Your task to perform on an android device: Open Amazon Image 0: 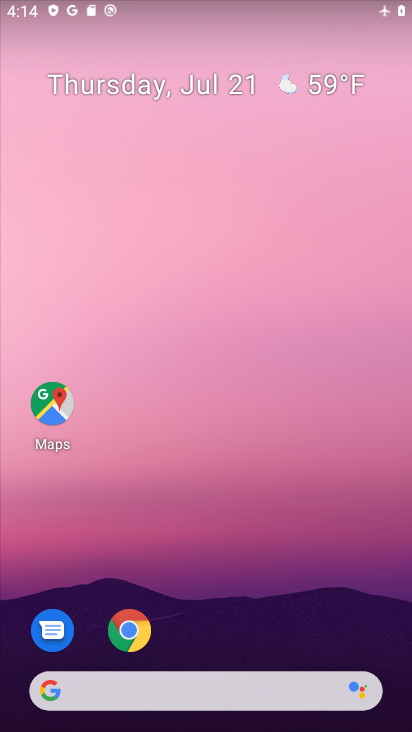
Step 0: drag from (242, 582) to (242, 153)
Your task to perform on an android device: Open Amazon Image 1: 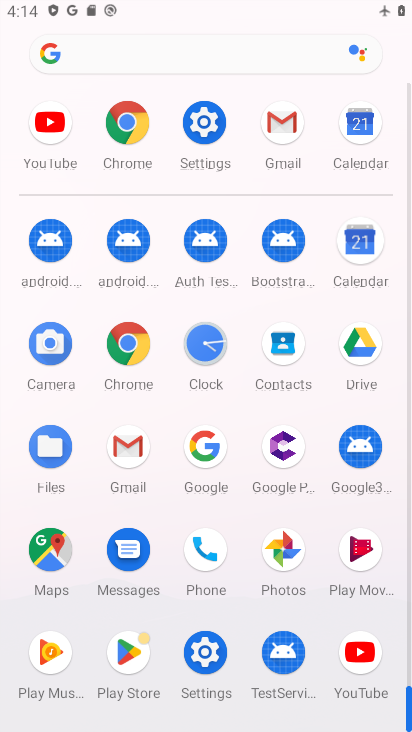
Step 1: click (129, 120)
Your task to perform on an android device: Open Amazon Image 2: 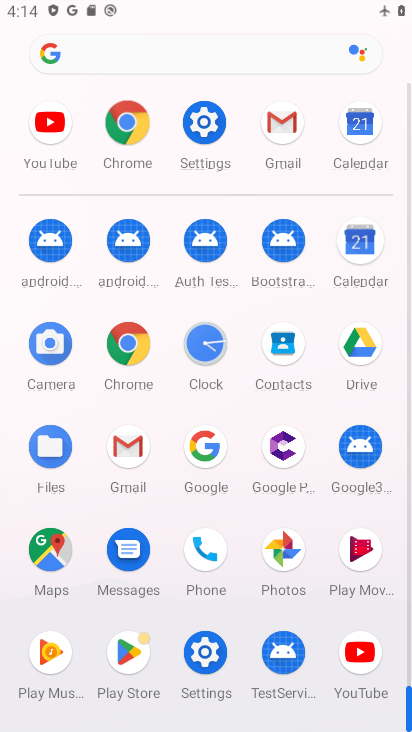
Step 2: click (135, 120)
Your task to perform on an android device: Open Amazon Image 3: 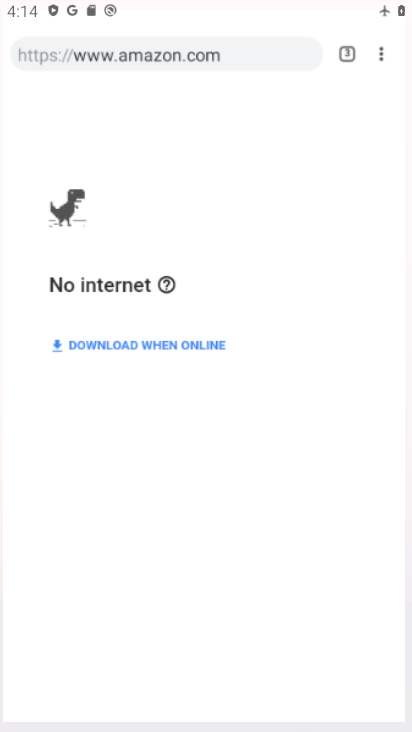
Step 3: click (136, 120)
Your task to perform on an android device: Open Amazon Image 4: 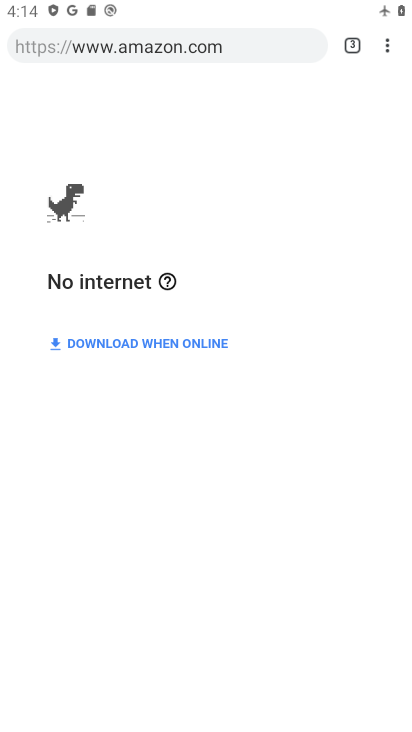
Step 4: drag from (386, 51) to (210, 92)
Your task to perform on an android device: Open Amazon Image 5: 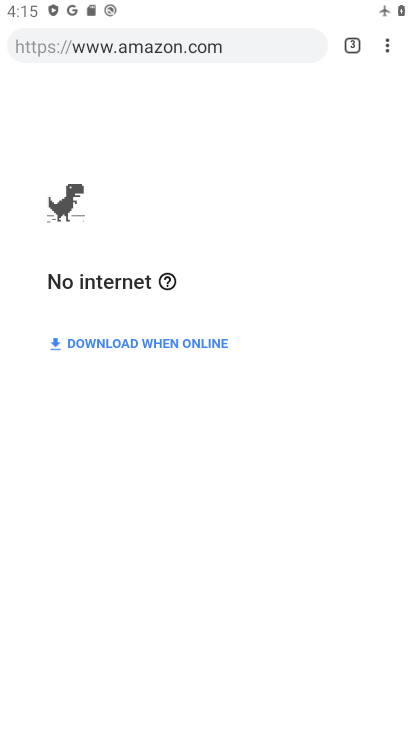
Step 5: click (211, 93)
Your task to perform on an android device: Open Amazon Image 6: 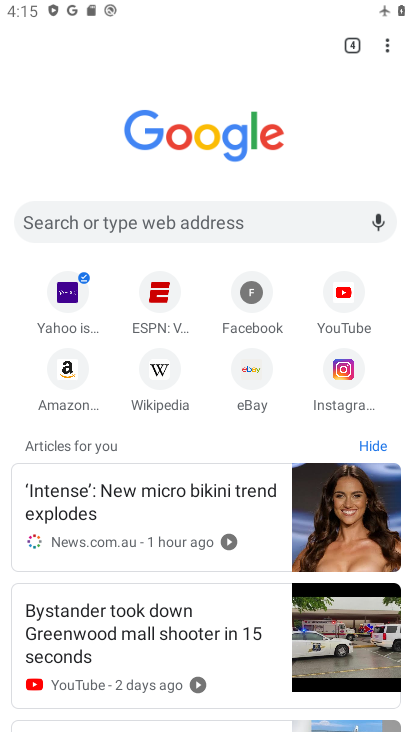
Step 6: click (63, 373)
Your task to perform on an android device: Open Amazon Image 7: 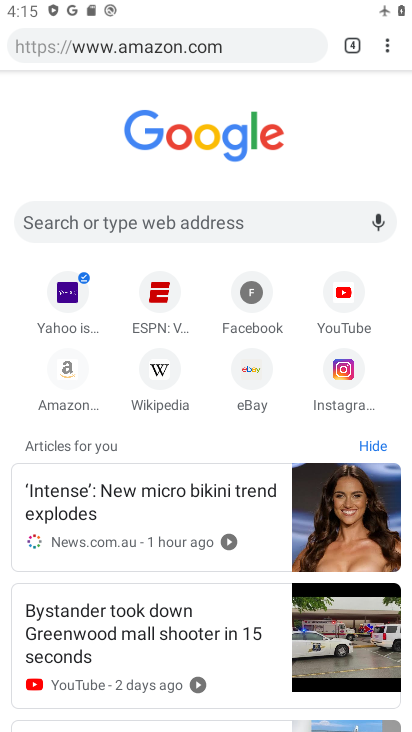
Step 7: click (66, 376)
Your task to perform on an android device: Open Amazon Image 8: 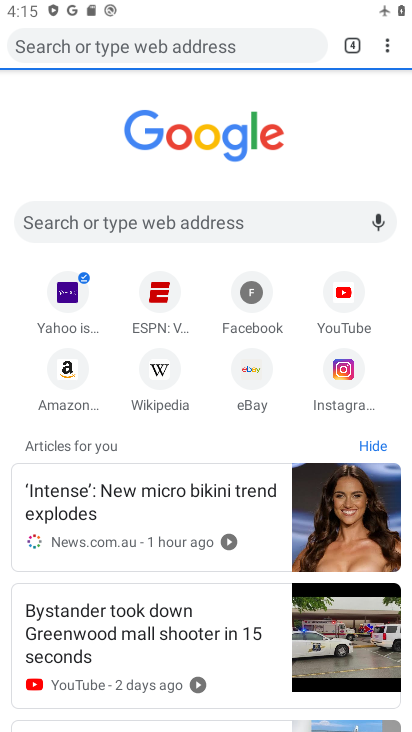
Step 8: click (67, 378)
Your task to perform on an android device: Open Amazon Image 9: 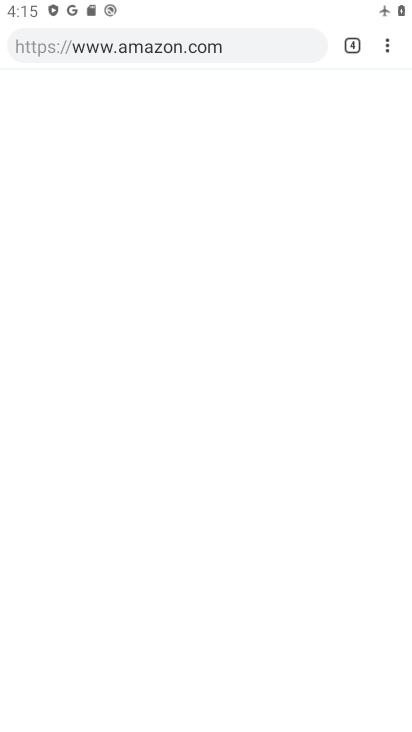
Step 9: click (67, 378)
Your task to perform on an android device: Open Amazon Image 10: 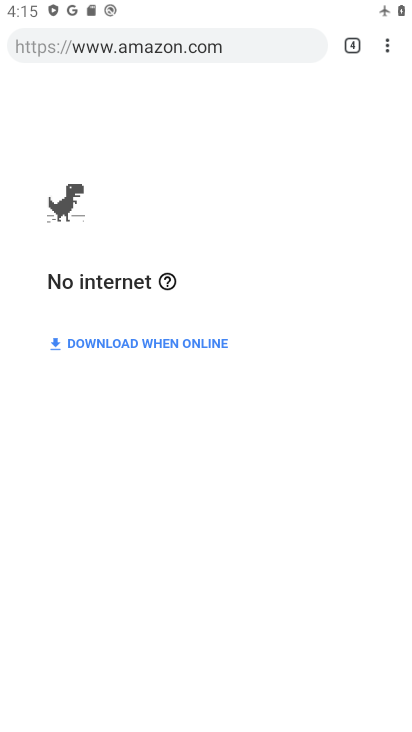
Step 10: task complete